Your task to perform on an android device: turn off translation in the chrome app Image 0: 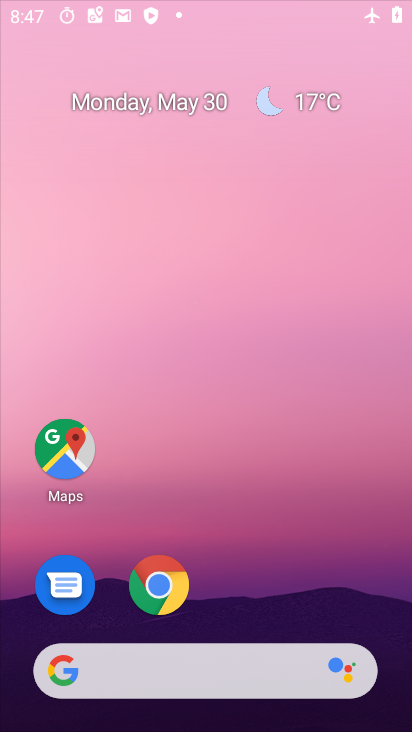
Step 0: click (328, 202)
Your task to perform on an android device: turn off translation in the chrome app Image 1: 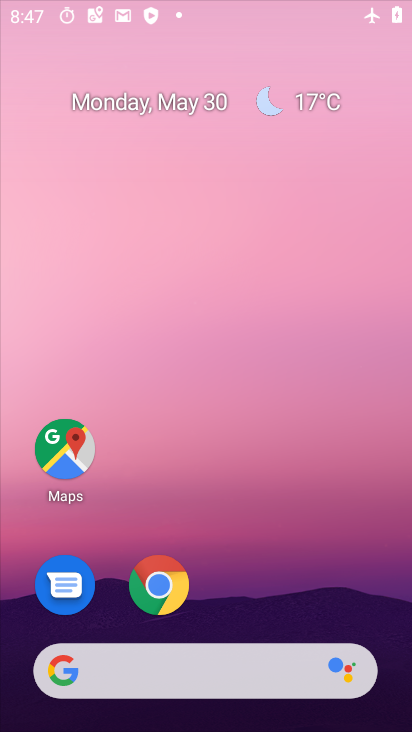
Step 1: drag from (218, 589) to (267, 104)
Your task to perform on an android device: turn off translation in the chrome app Image 2: 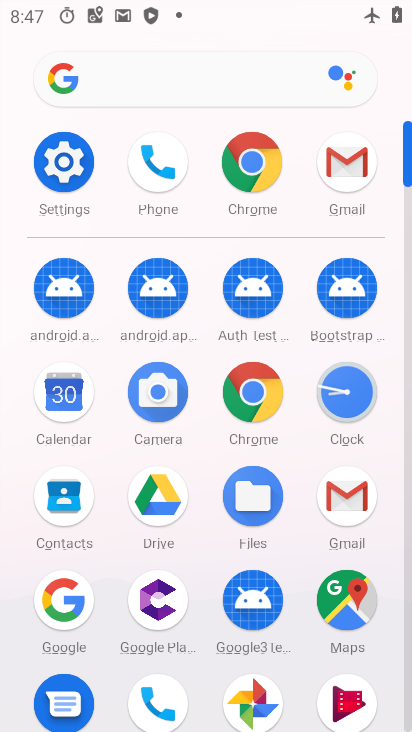
Step 2: drag from (204, 354) to (231, 118)
Your task to perform on an android device: turn off translation in the chrome app Image 3: 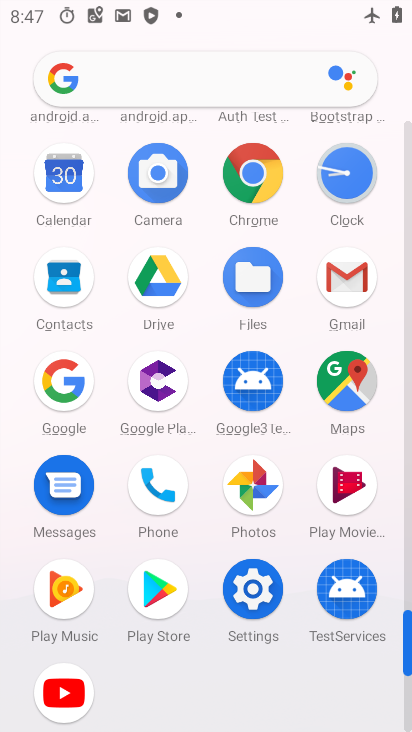
Step 3: click (247, 178)
Your task to perform on an android device: turn off translation in the chrome app Image 4: 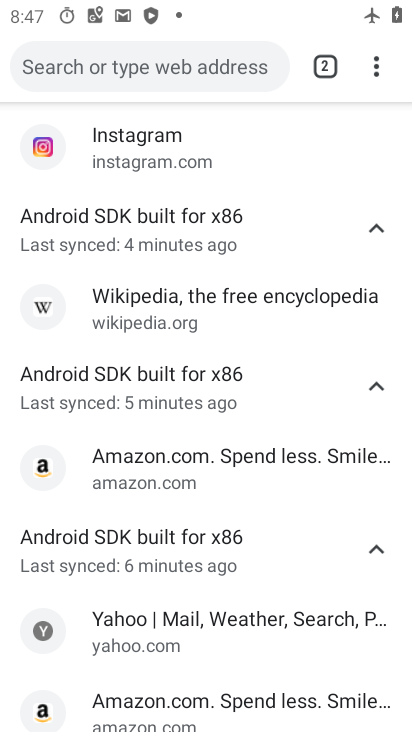
Step 4: click (375, 68)
Your task to perform on an android device: turn off translation in the chrome app Image 5: 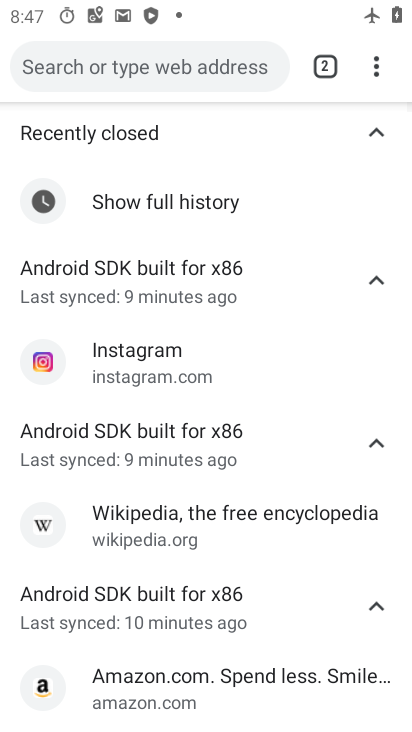
Step 5: drag from (374, 84) to (163, 554)
Your task to perform on an android device: turn off translation in the chrome app Image 6: 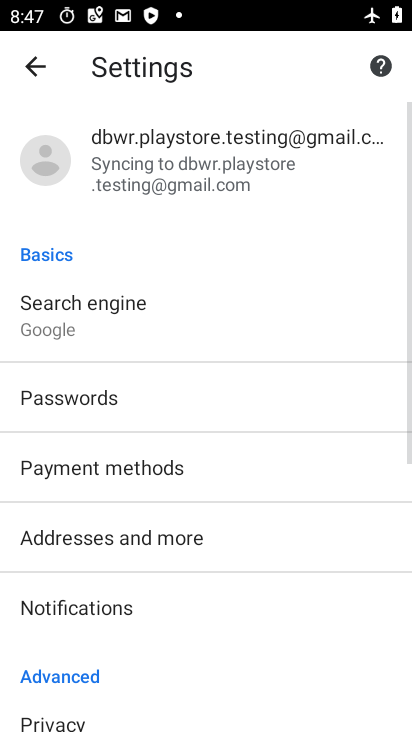
Step 6: drag from (163, 618) to (320, 108)
Your task to perform on an android device: turn off translation in the chrome app Image 7: 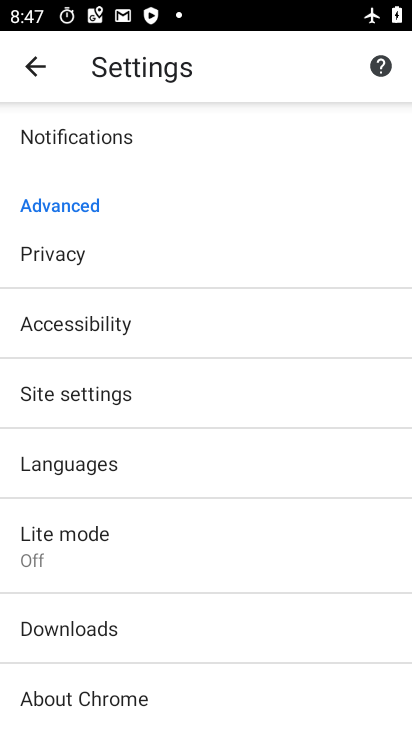
Step 7: drag from (157, 627) to (246, 227)
Your task to perform on an android device: turn off translation in the chrome app Image 8: 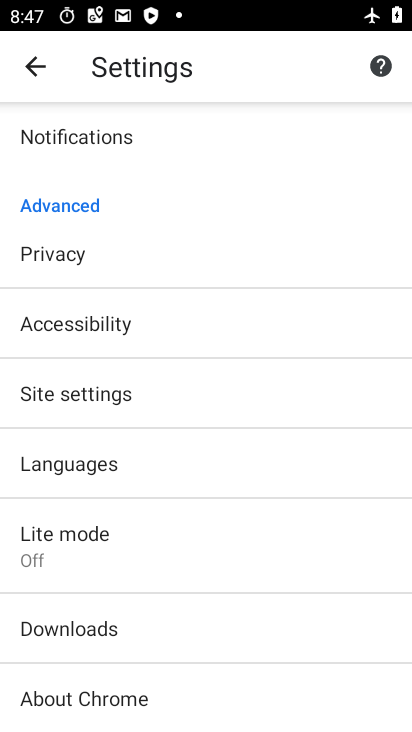
Step 8: click (95, 464)
Your task to perform on an android device: turn off translation in the chrome app Image 9: 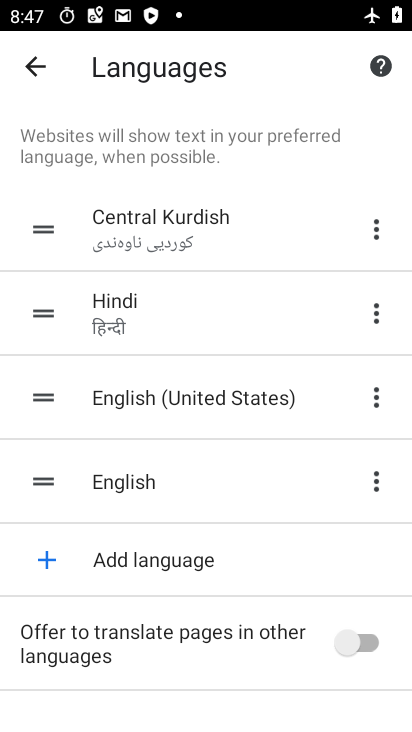
Step 9: task complete